Your task to perform on an android device: turn off location history Image 0: 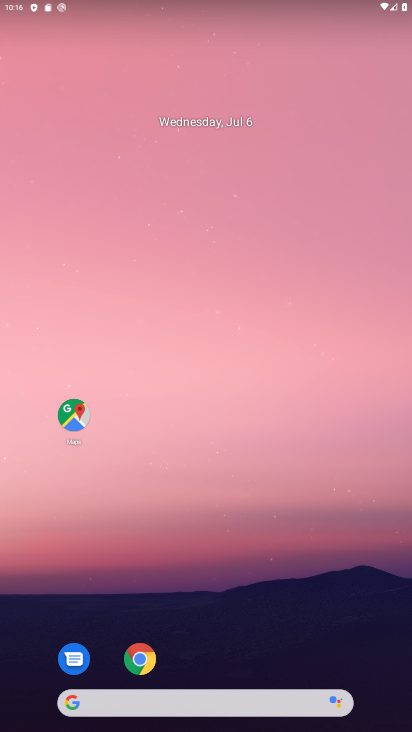
Step 0: drag from (212, 651) to (206, 11)
Your task to perform on an android device: turn off location history Image 1: 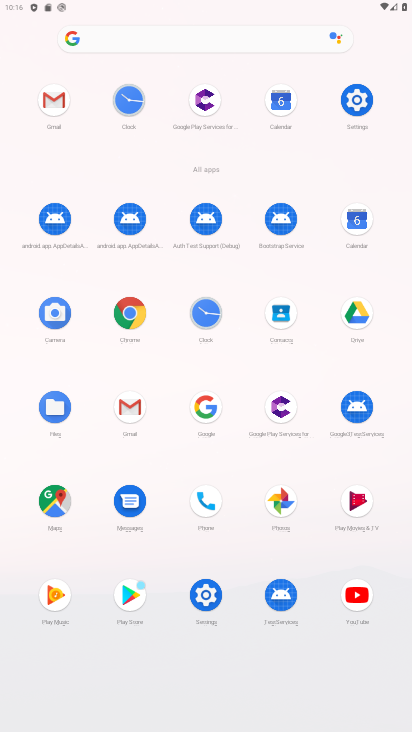
Step 1: click (357, 99)
Your task to perform on an android device: turn off location history Image 2: 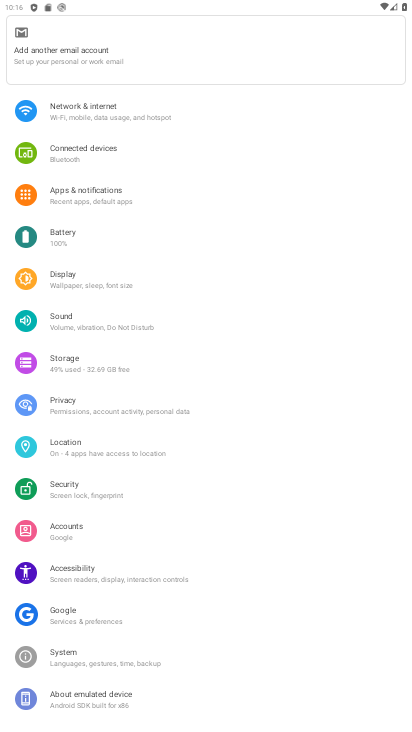
Step 2: click (86, 446)
Your task to perform on an android device: turn off location history Image 3: 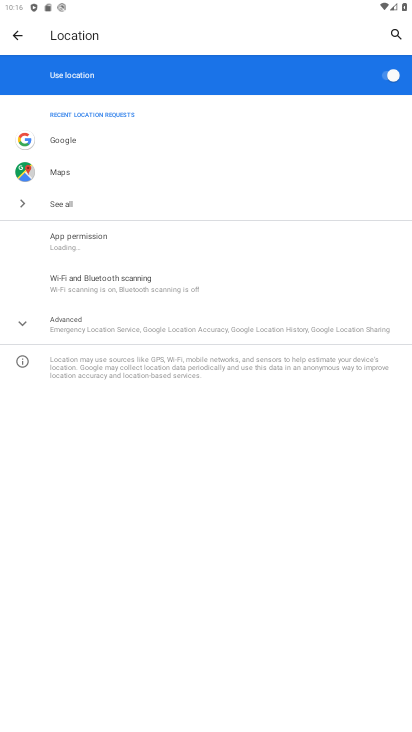
Step 3: click (22, 322)
Your task to perform on an android device: turn off location history Image 4: 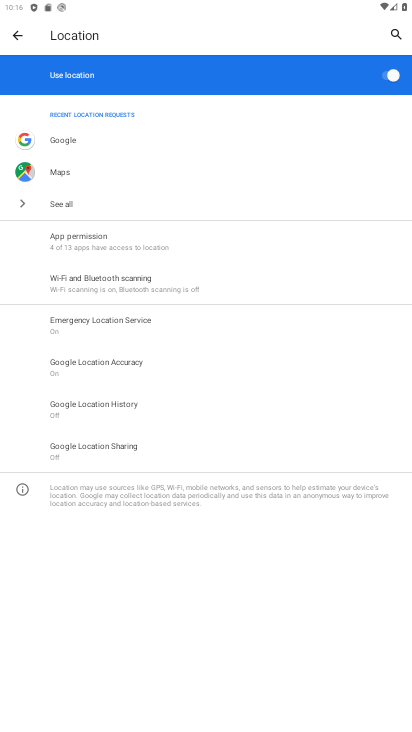
Step 4: click (133, 410)
Your task to perform on an android device: turn off location history Image 5: 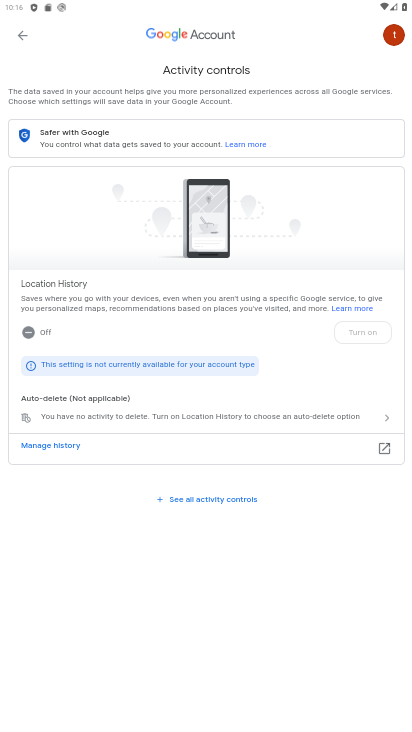
Step 5: task complete